Your task to perform on an android device: add a label to a message in the gmail app Image 0: 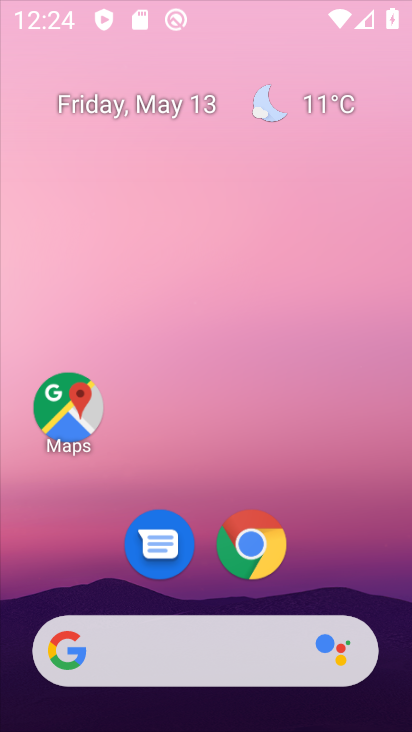
Step 0: click (329, 131)
Your task to perform on an android device: add a label to a message in the gmail app Image 1: 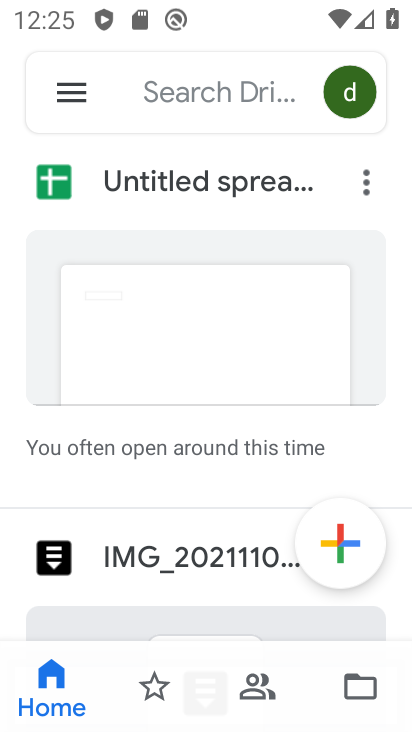
Step 1: press home button
Your task to perform on an android device: add a label to a message in the gmail app Image 2: 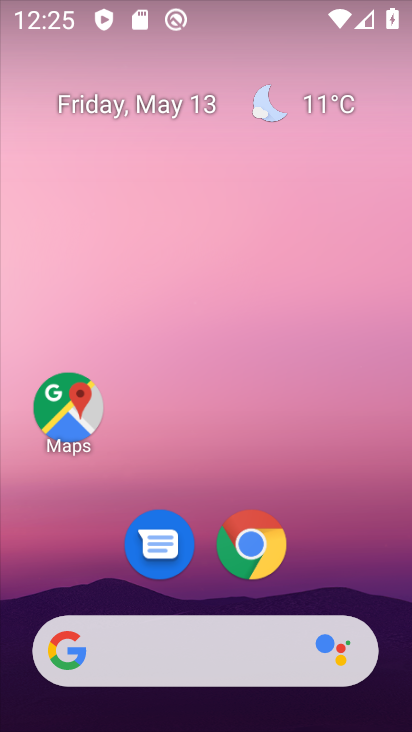
Step 2: drag from (333, 478) to (319, 252)
Your task to perform on an android device: add a label to a message in the gmail app Image 3: 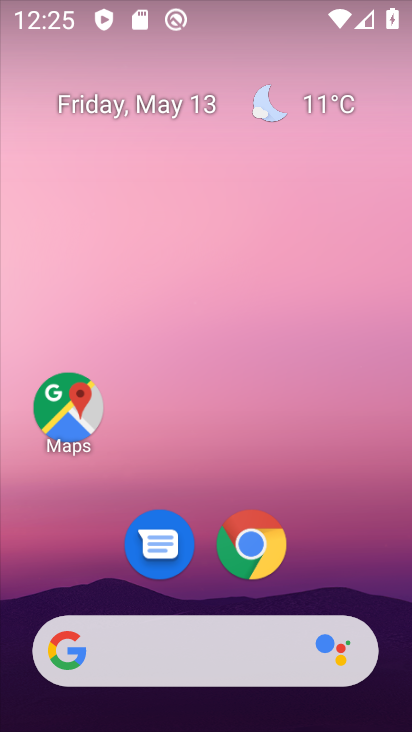
Step 3: drag from (316, 414) to (316, 188)
Your task to perform on an android device: add a label to a message in the gmail app Image 4: 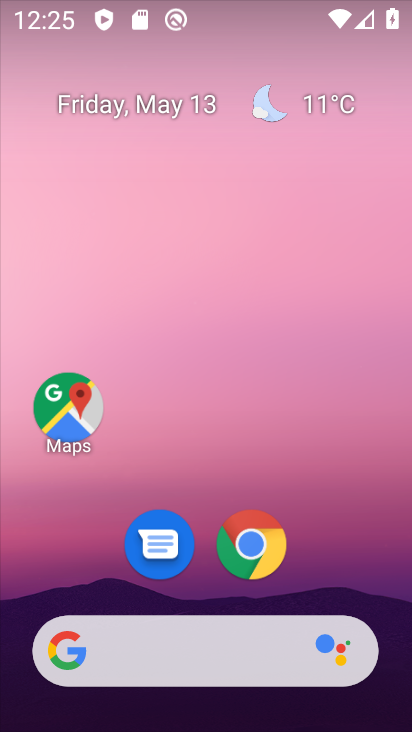
Step 4: drag from (332, 556) to (301, 186)
Your task to perform on an android device: add a label to a message in the gmail app Image 5: 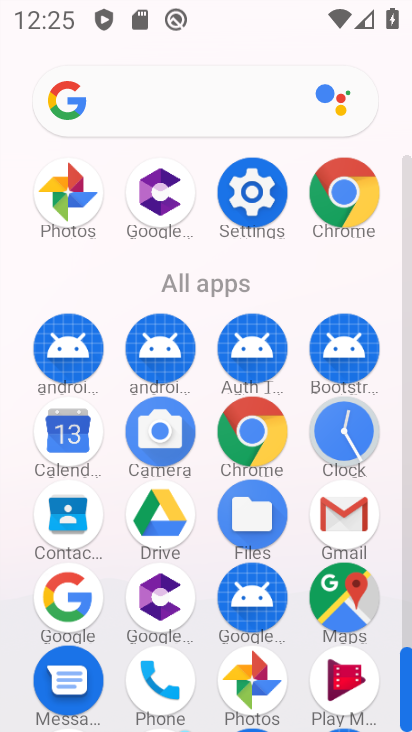
Step 5: click (345, 509)
Your task to perform on an android device: add a label to a message in the gmail app Image 6: 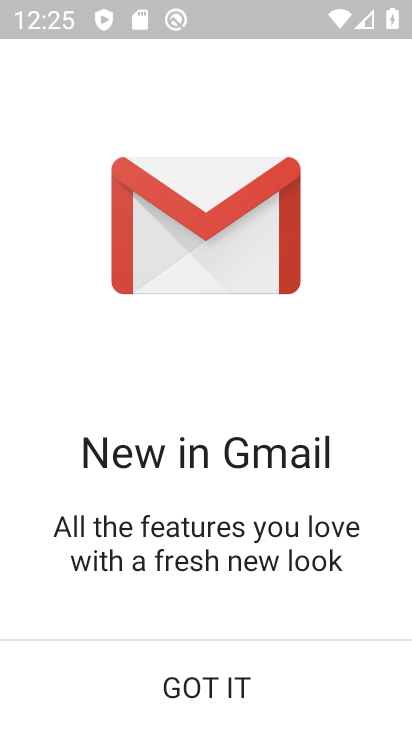
Step 6: click (256, 683)
Your task to perform on an android device: add a label to a message in the gmail app Image 7: 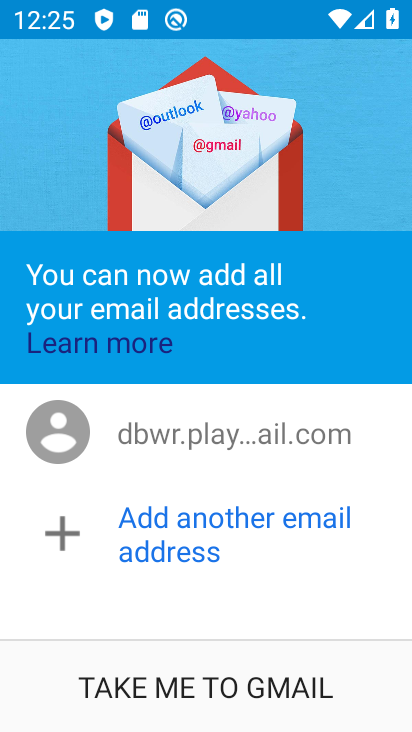
Step 7: click (236, 700)
Your task to perform on an android device: add a label to a message in the gmail app Image 8: 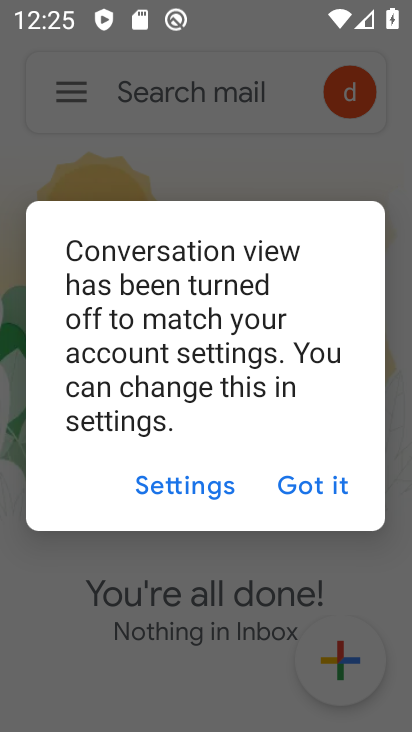
Step 8: click (326, 491)
Your task to perform on an android device: add a label to a message in the gmail app Image 9: 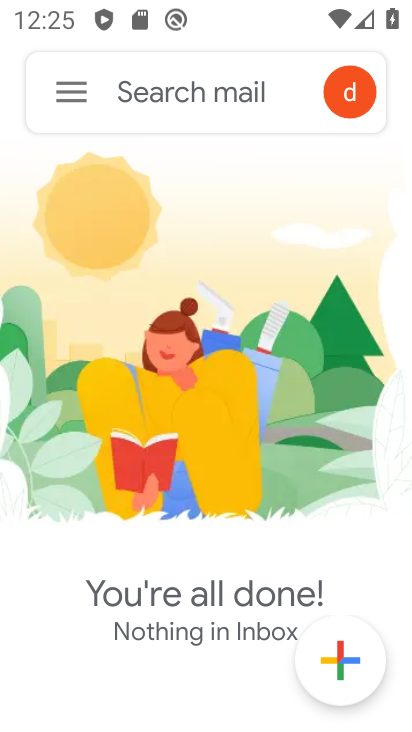
Step 9: task complete